Your task to perform on an android device: Check the news Image 0: 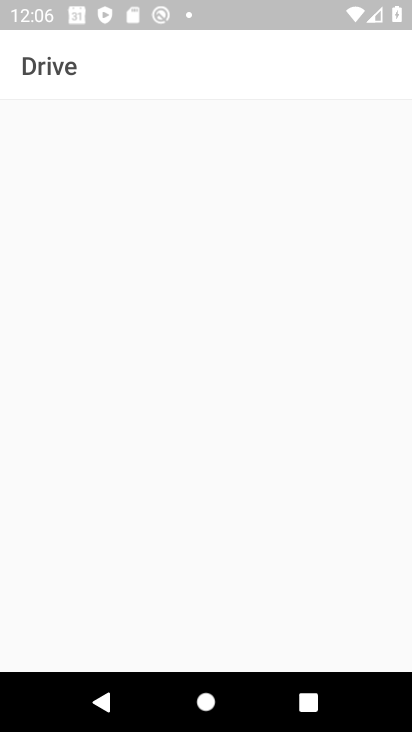
Step 0: press home button
Your task to perform on an android device: Check the news Image 1: 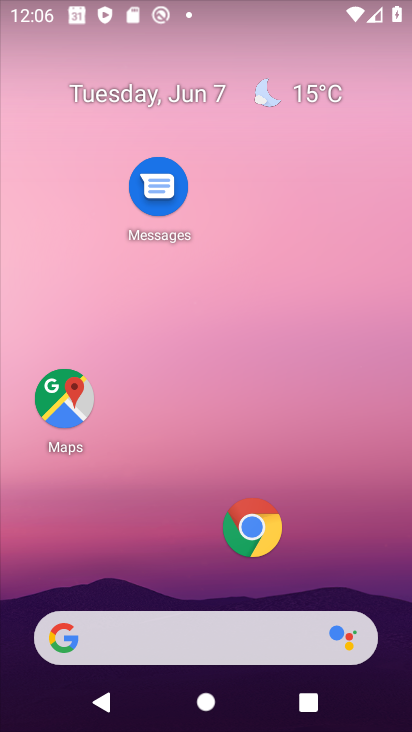
Step 1: drag from (184, 556) to (192, 68)
Your task to perform on an android device: Check the news Image 2: 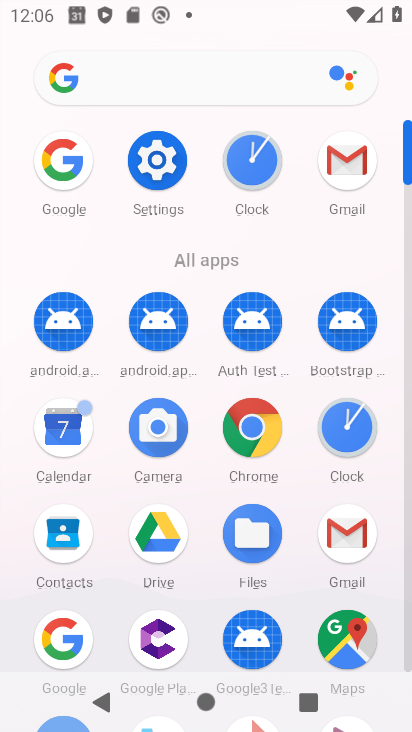
Step 2: click (47, 644)
Your task to perform on an android device: Check the news Image 3: 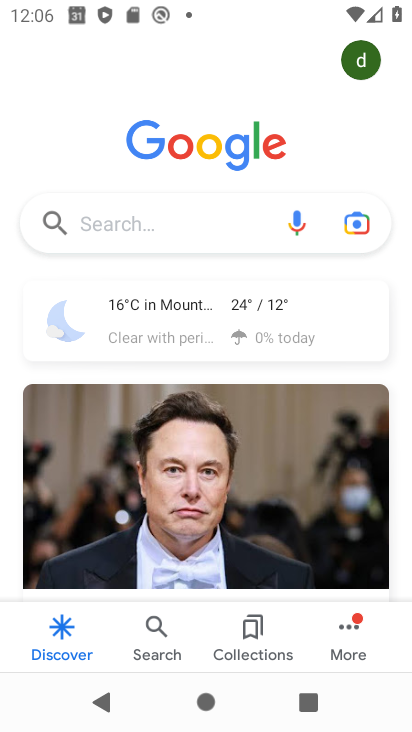
Step 3: drag from (136, 210) to (62, 210)
Your task to perform on an android device: Check the news Image 4: 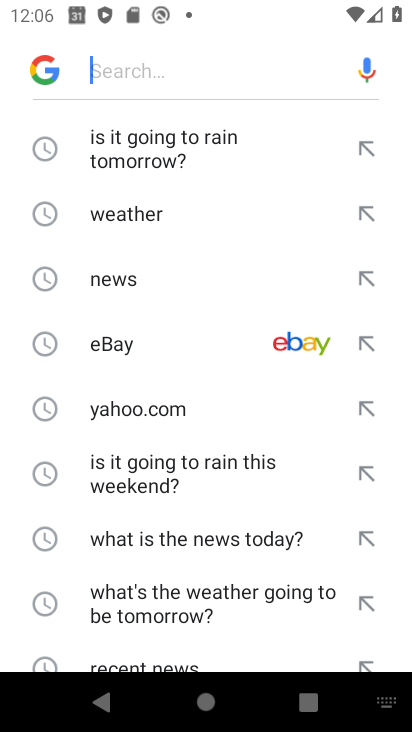
Step 4: click (138, 285)
Your task to perform on an android device: Check the news Image 5: 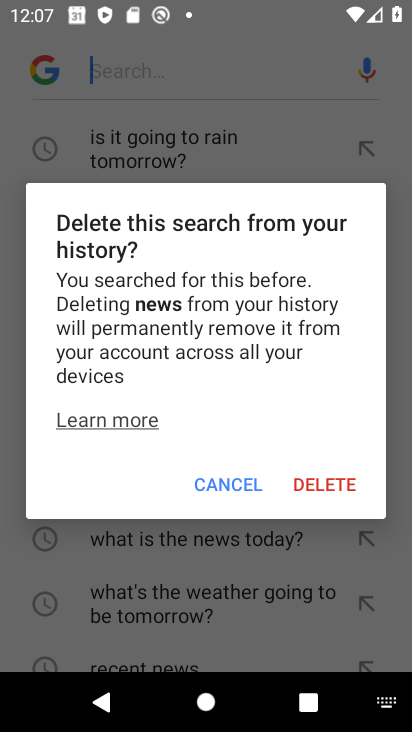
Step 5: click (210, 485)
Your task to perform on an android device: Check the news Image 6: 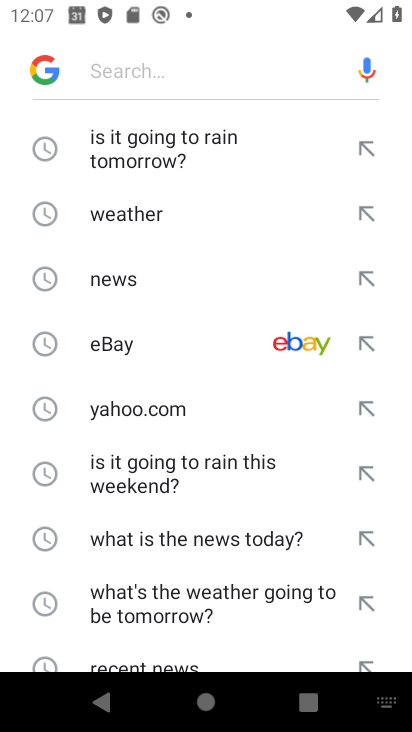
Step 6: click (122, 287)
Your task to perform on an android device: Check the news Image 7: 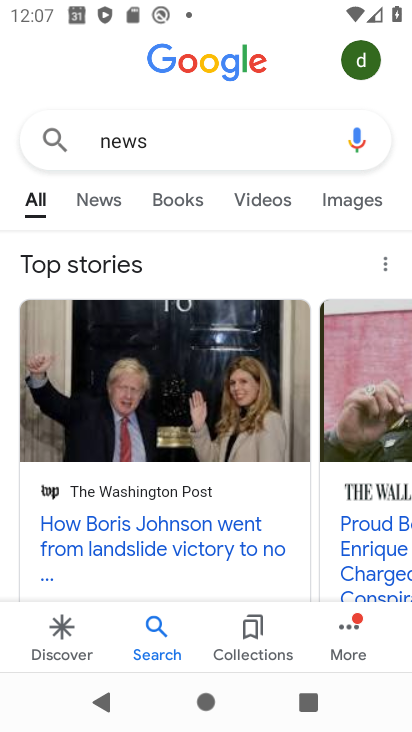
Step 7: click (121, 343)
Your task to perform on an android device: Check the news Image 8: 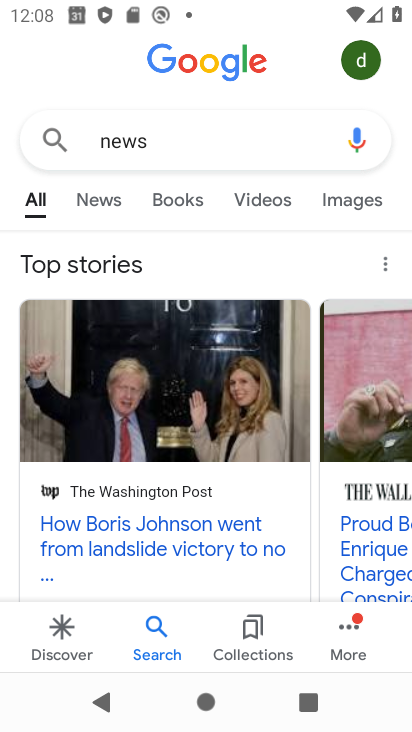
Step 8: task complete